Your task to perform on an android device: add a contact in the contacts app Image 0: 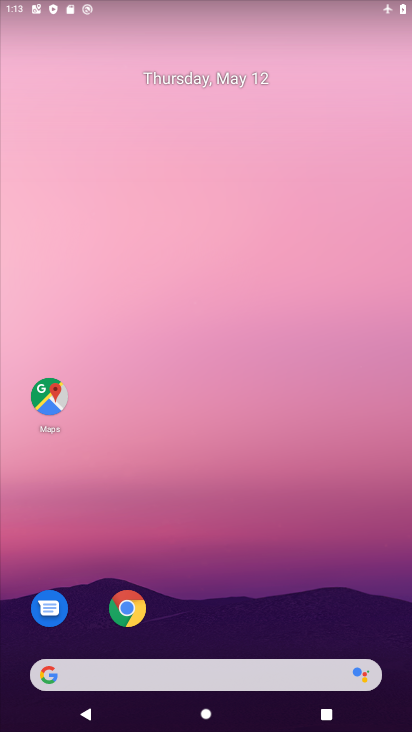
Step 0: drag from (246, 614) to (274, 18)
Your task to perform on an android device: add a contact in the contacts app Image 1: 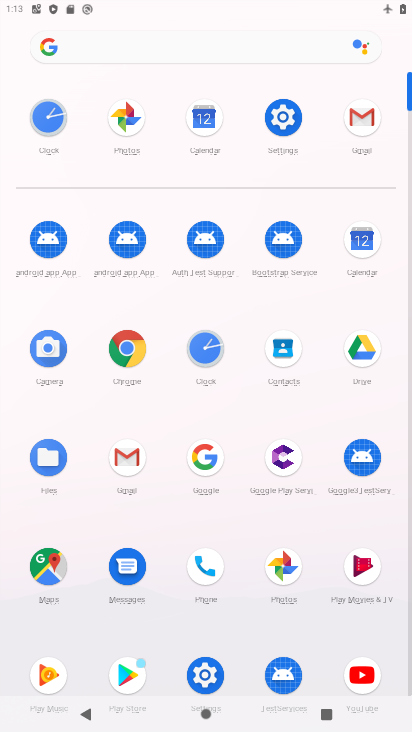
Step 1: click (282, 340)
Your task to perform on an android device: add a contact in the contacts app Image 2: 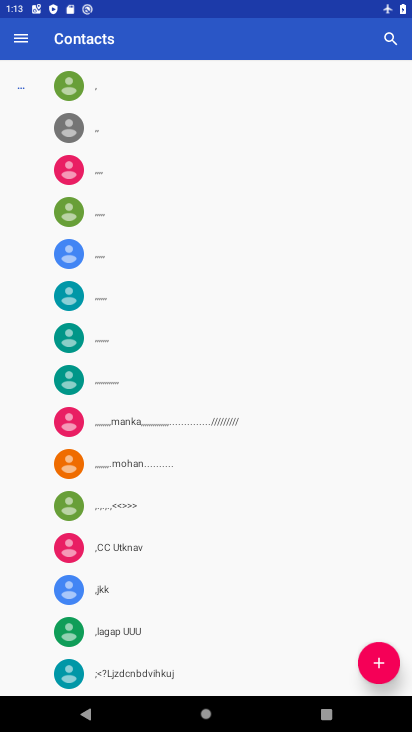
Step 2: click (385, 654)
Your task to perform on an android device: add a contact in the contacts app Image 3: 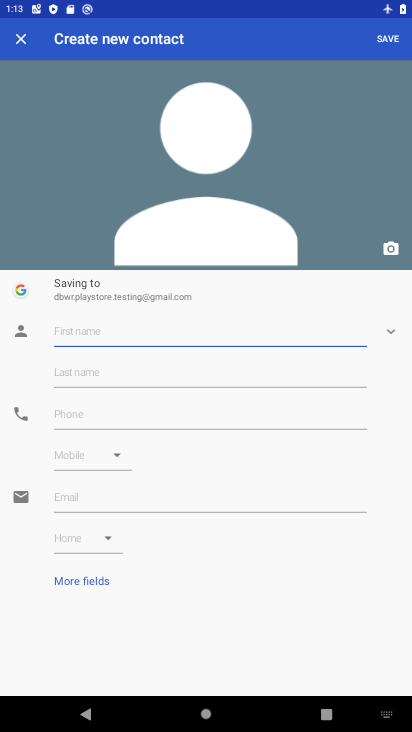
Step 3: click (119, 334)
Your task to perform on an android device: add a contact in the contacts app Image 4: 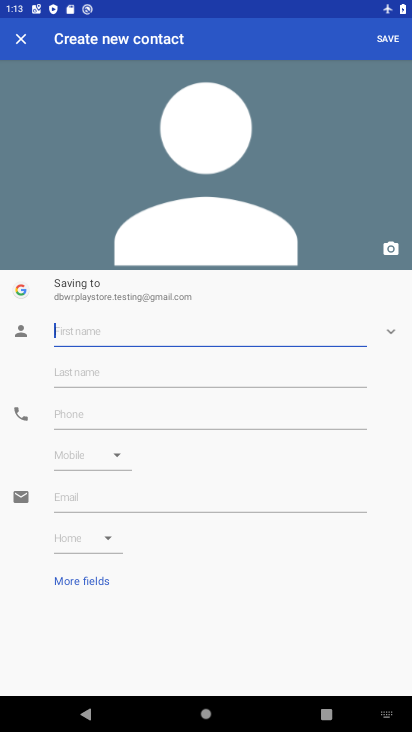
Step 4: type "veer"
Your task to perform on an android device: add a contact in the contacts app Image 5: 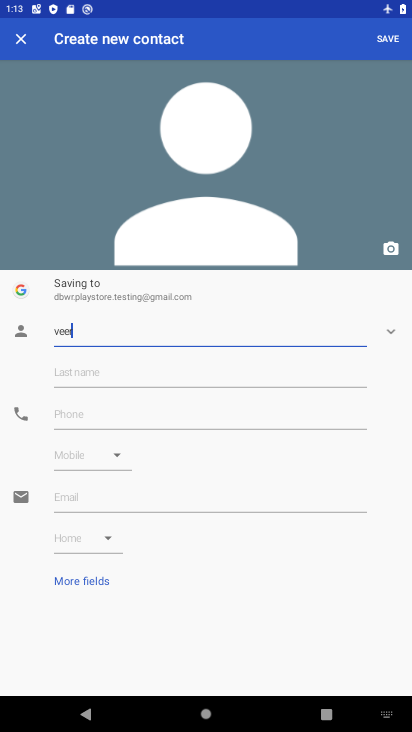
Step 5: click (131, 404)
Your task to perform on an android device: add a contact in the contacts app Image 6: 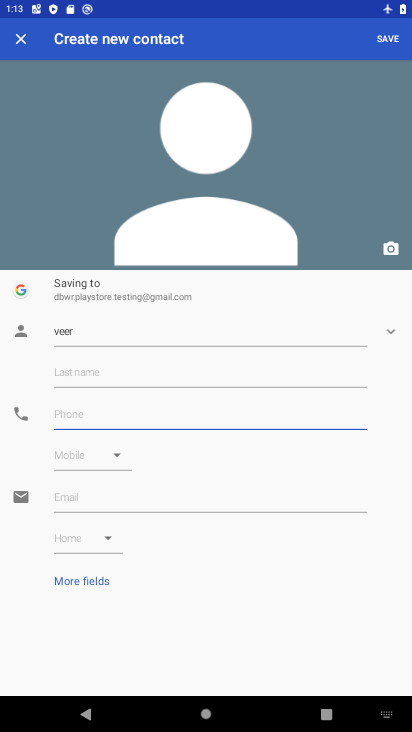
Step 6: type "787665443"
Your task to perform on an android device: add a contact in the contacts app Image 7: 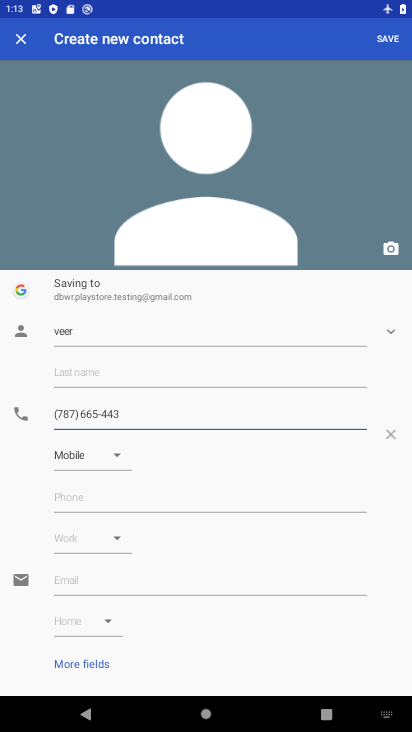
Step 7: click (392, 42)
Your task to perform on an android device: add a contact in the contacts app Image 8: 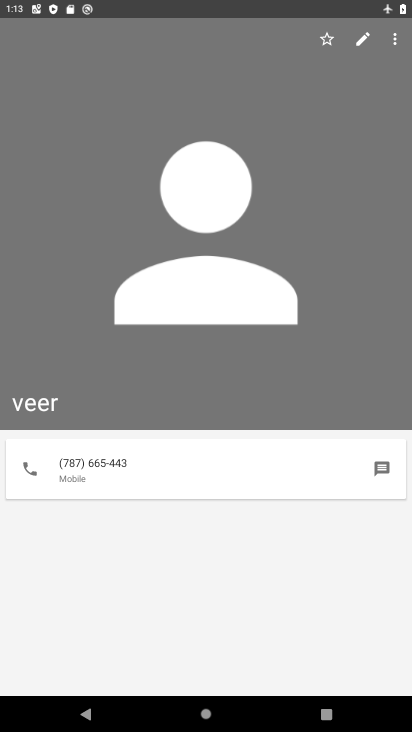
Step 8: task complete